Your task to perform on an android device: Toggle the flashlight Image 0: 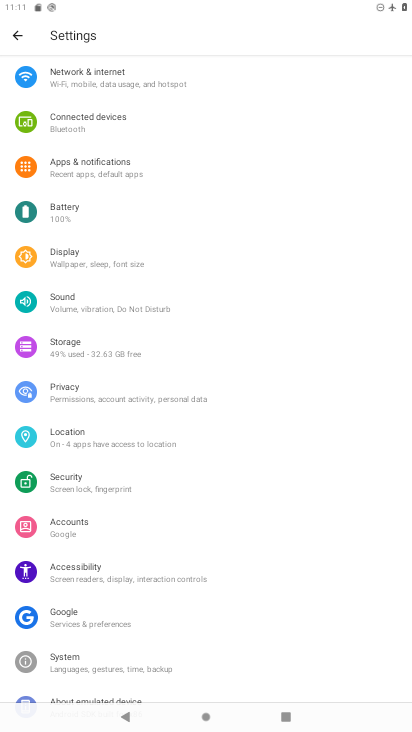
Step 0: click (88, 260)
Your task to perform on an android device: Toggle the flashlight Image 1: 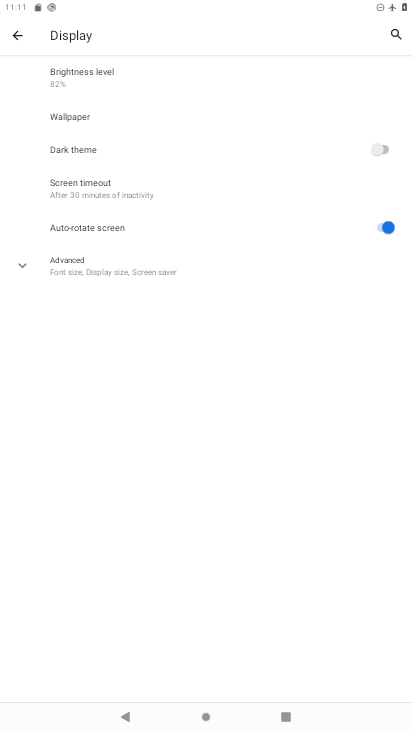
Step 1: task complete